Your task to perform on an android device: set an alarm Image 0: 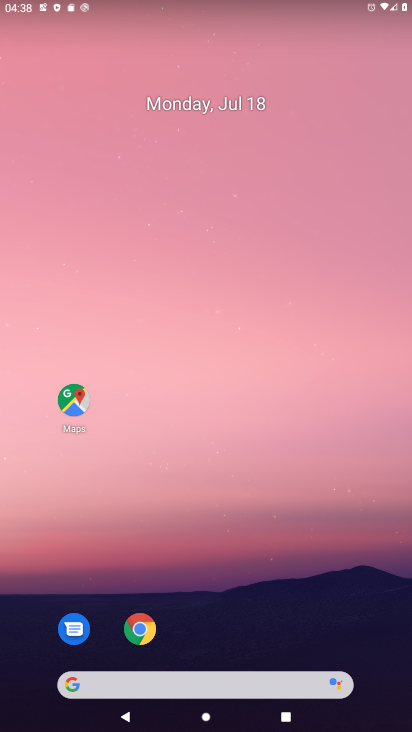
Step 0: drag from (390, 633) to (272, 181)
Your task to perform on an android device: set an alarm Image 1: 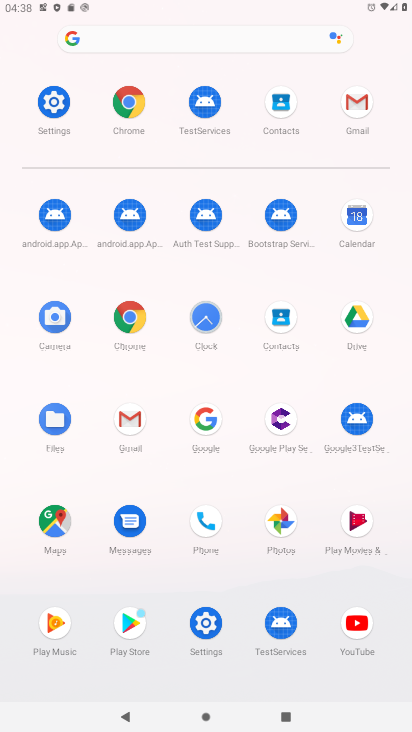
Step 1: click (61, 105)
Your task to perform on an android device: set an alarm Image 2: 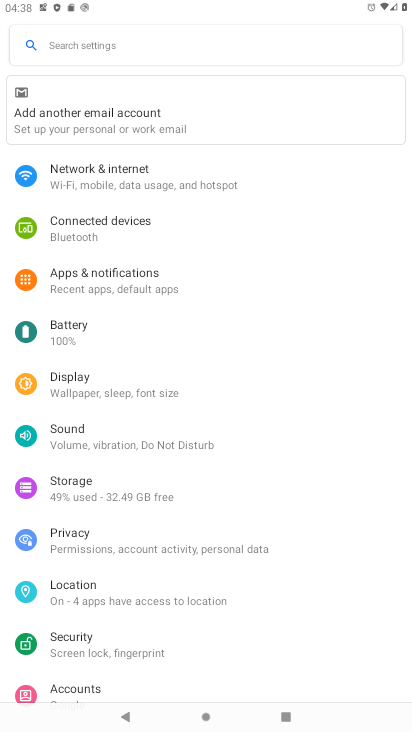
Step 2: press home button
Your task to perform on an android device: set an alarm Image 3: 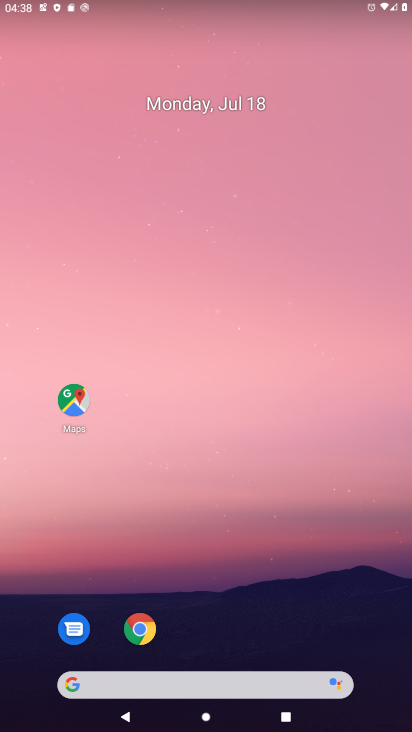
Step 3: drag from (375, 677) to (245, 84)
Your task to perform on an android device: set an alarm Image 4: 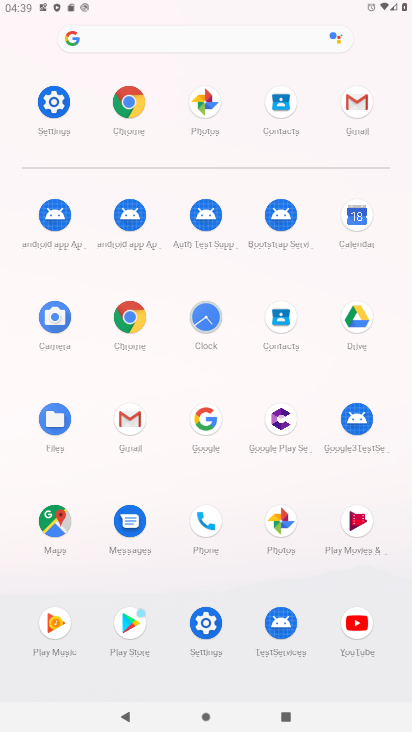
Step 4: click (200, 318)
Your task to perform on an android device: set an alarm Image 5: 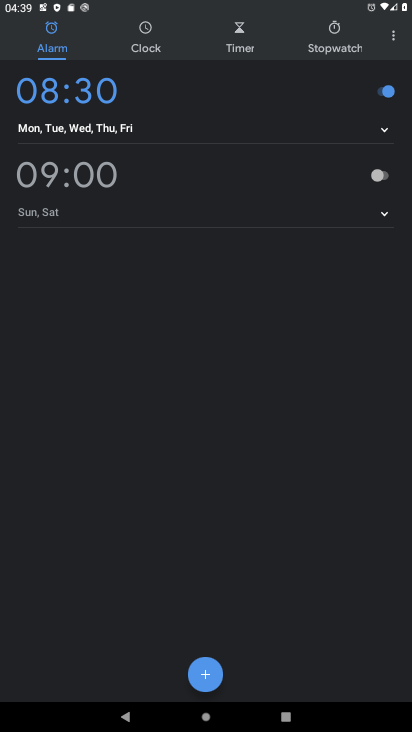
Step 5: click (380, 178)
Your task to perform on an android device: set an alarm Image 6: 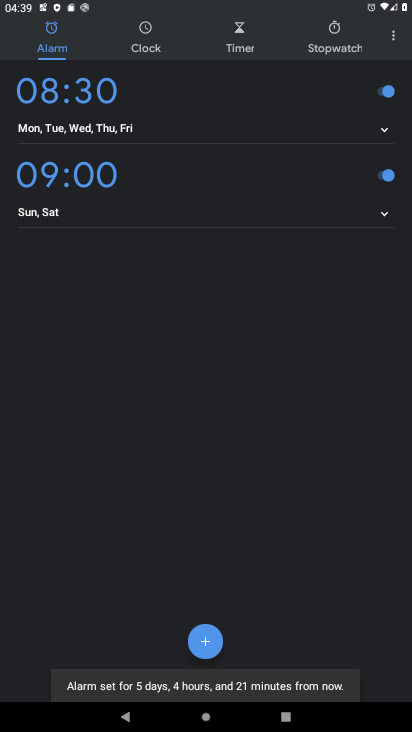
Step 6: task complete